Your task to perform on an android device: open a new tab in the chrome app Image 0: 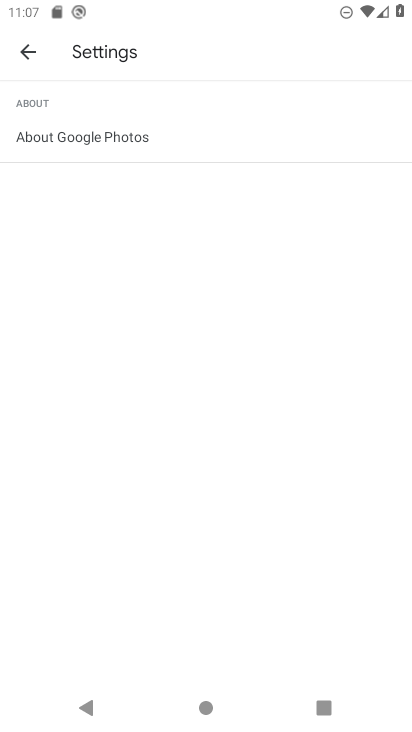
Step 0: press home button
Your task to perform on an android device: open a new tab in the chrome app Image 1: 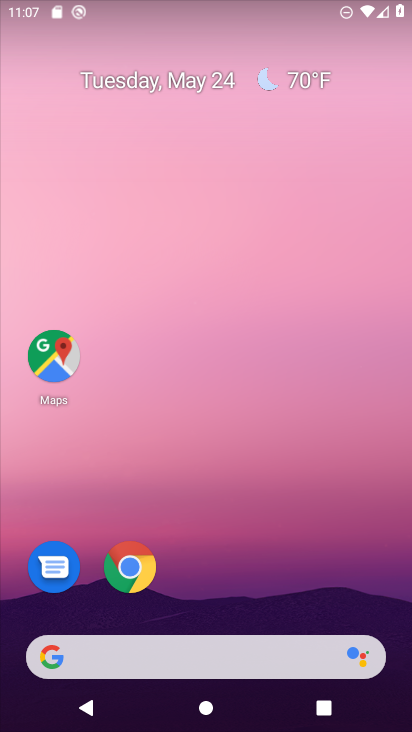
Step 1: click (140, 568)
Your task to perform on an android device: open a new tab in the chrome app Image 2: 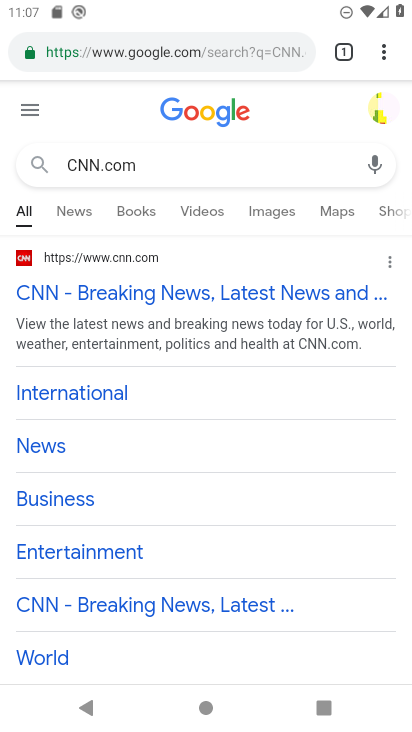
Step 2: click (386, 51)
Your task to perform on an android device: open a new tab in the chrome app Image 3: 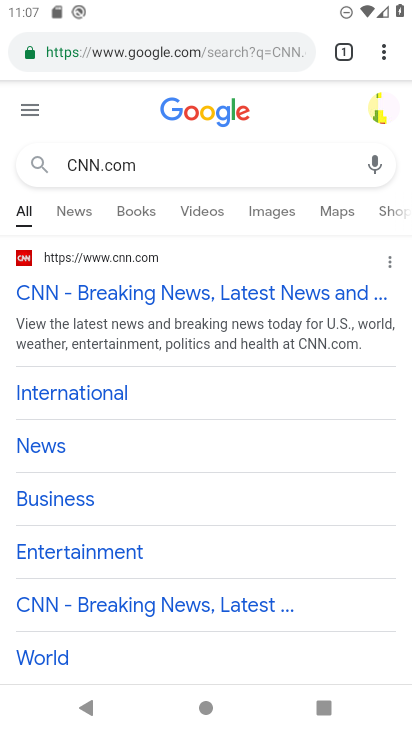
Step 3: click (380, 52)
Your task to perform on an android device: open a new tab in the chrome app Image 4: 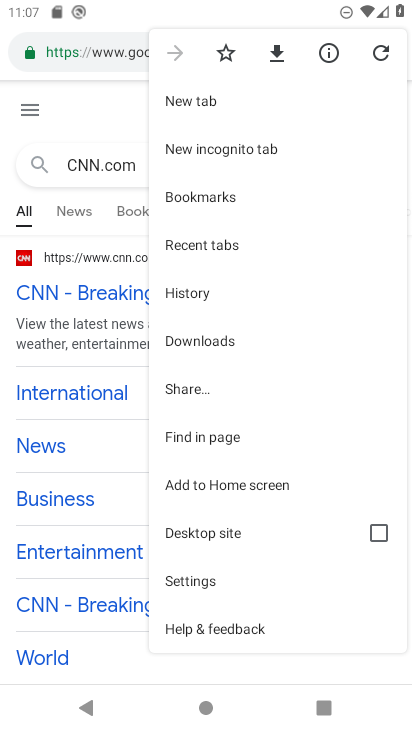
Step 4: click (208, 95)
Your task to perform on an android device: open a new tab in the chrome app Image 5: 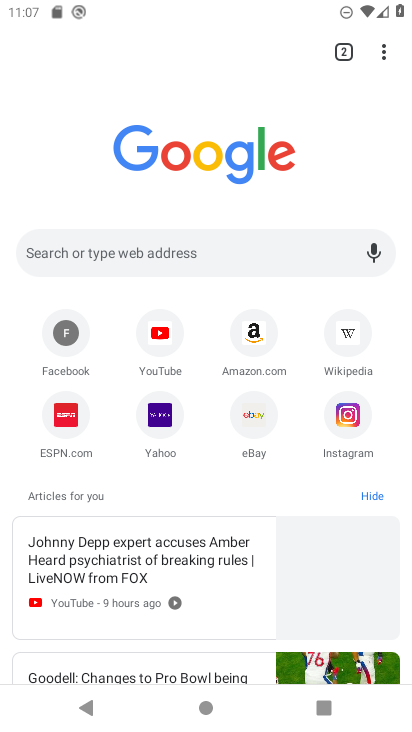
Step 5: task complete